Your task to perform on an android device: Open my contact list Image 0: 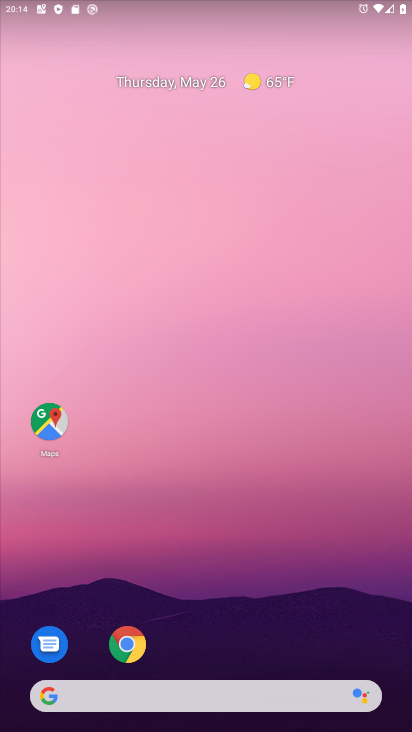
Step 0: click (231, 164)
Your task to perform on an android device: Open my contact list Image 1: 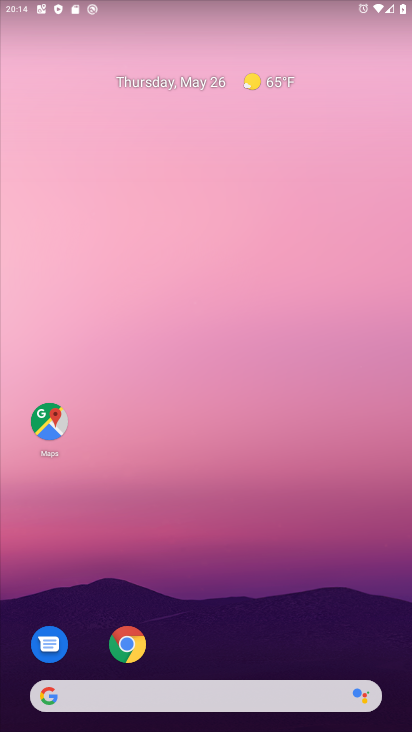
Step 1: drag from (190, 615) to (238, 47)
Your task to perform on an android device: Open my contact list Image 2: 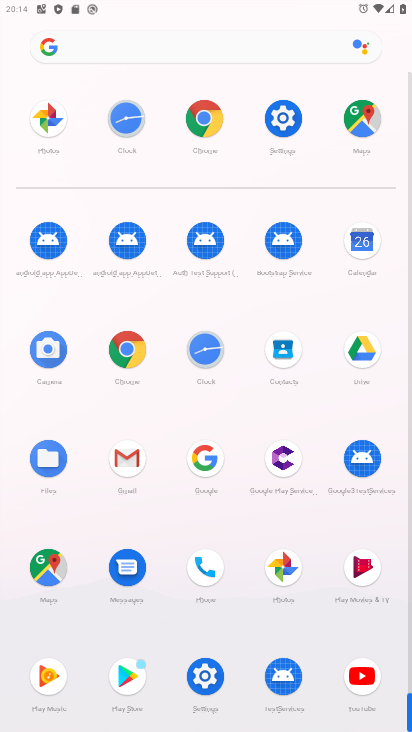
Step 2: click (287, 338)
Your task to perform on an android device: Open my contact list Image 3: 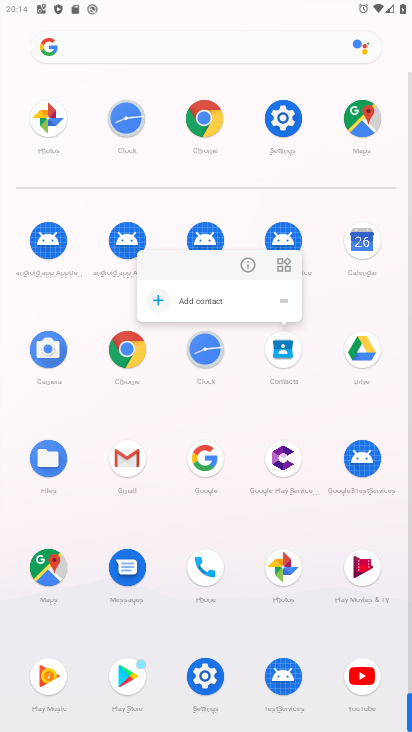
Step 3: click (241, 258)
Your task to perform on an android device: Open my contact list Image 4: 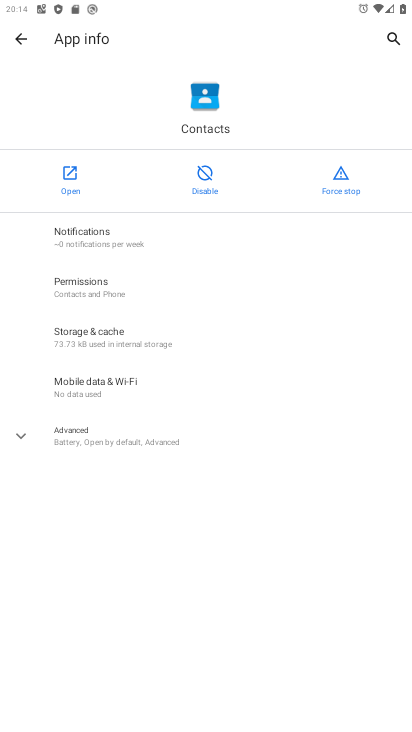
Step 4: click (66, 154)
Your task to perform on an android device: Open my contact list Image 5: 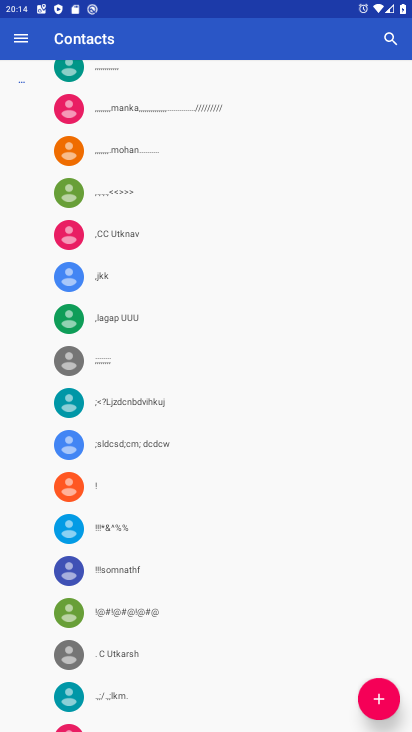
Step 5: task complete